Your task to perform on an android device: find snoozed emails in the gmail app Image 0: 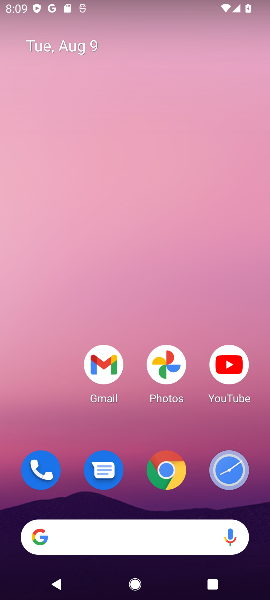
Step 0: click (96, 374)
Your task to perform on an android device: find snoozed emails in the gmail app Image 1: 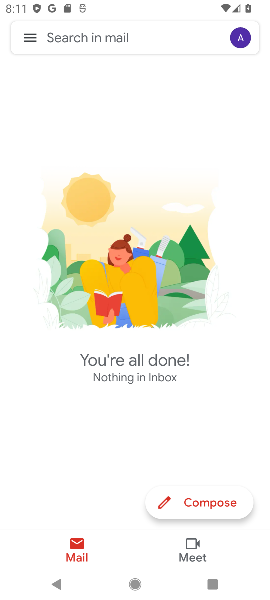
Step 1: click (28, 35)
Your task to perform on an android device: find snoozed emails in the gmail app Image 2: 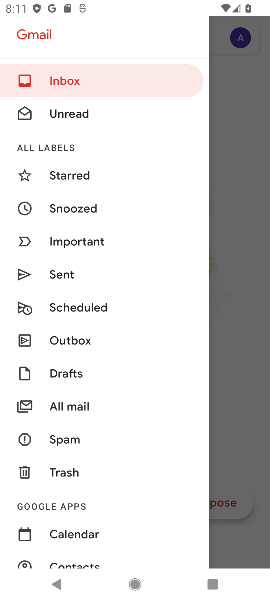
Step 2: click (118, 207)
Your task to perform on an android device: find snoozed emails in the gmail app Image 3: 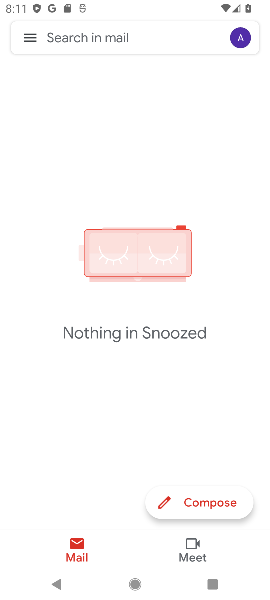
Step 3: task complete